Your task to perform on an android device: Open Reddit.com Image 0: 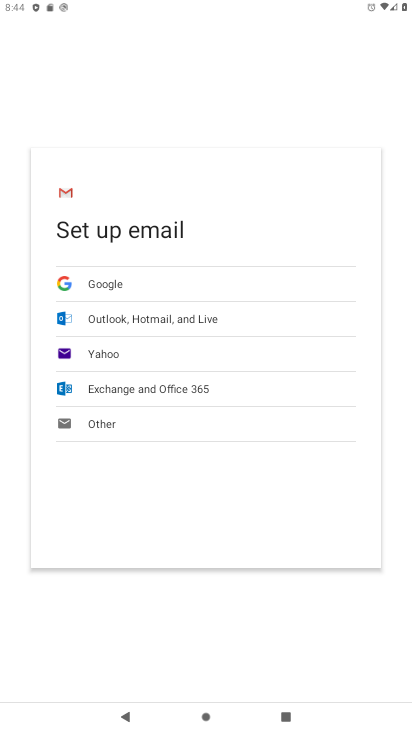
Step 0: press home button
Your task to perform on an android device: Open Reddit.com Image 1: 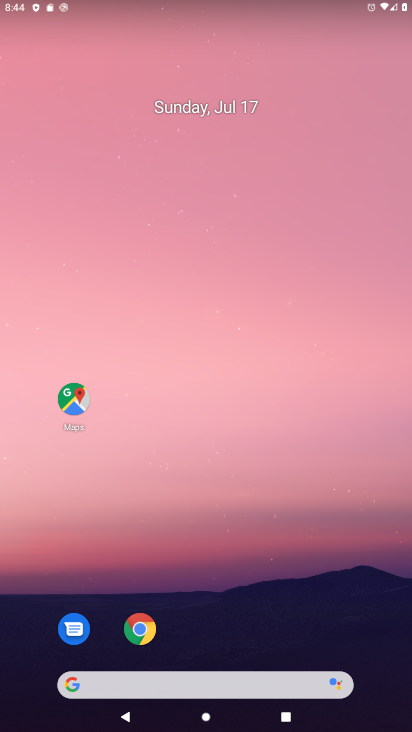
Step 1: click (136, 625)
Your task to perform on an android device: Open Reddit.com Image 2: 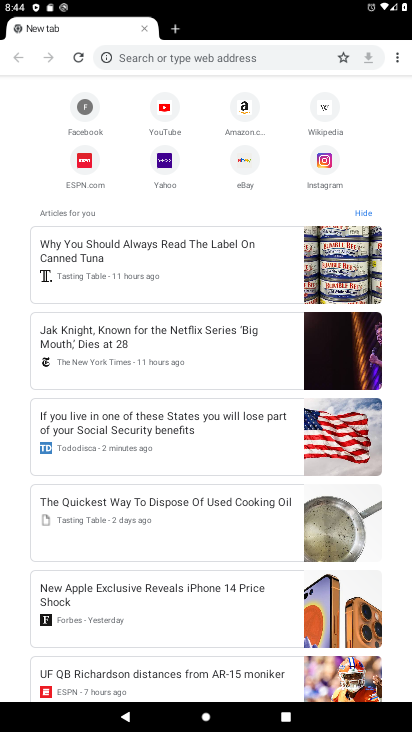
Step 2: click (255, 60)
Your task to perform on an android device: Open Reddit.com Image 3: 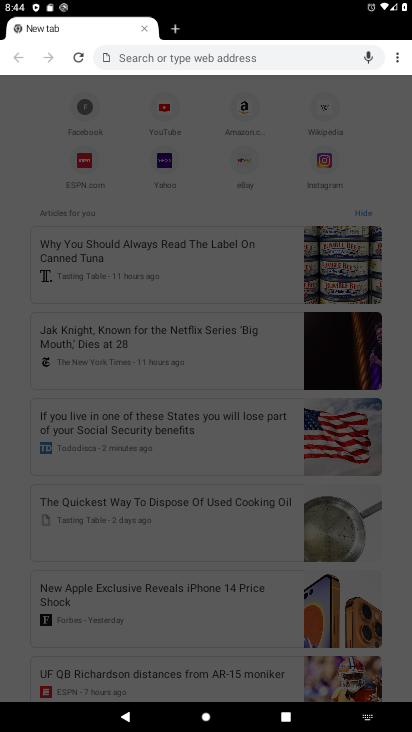
Step 3: type "Reddit.com"
Your task to perform on an android device: Open Reddit.com Image 4: 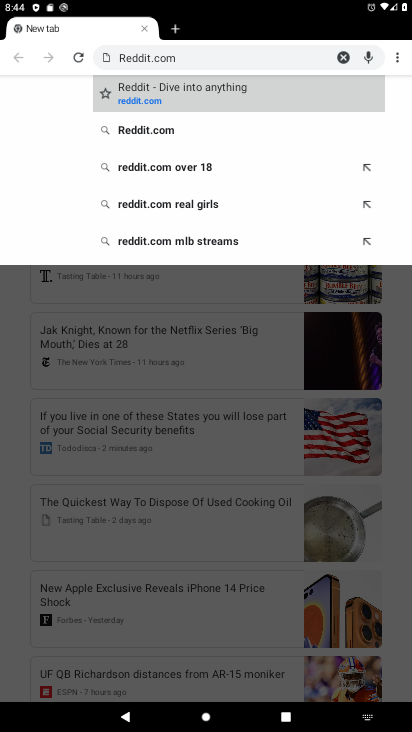
Step 4: click (289, 90)
Your task to perform on an android device: Open Reddit.com Image 5: 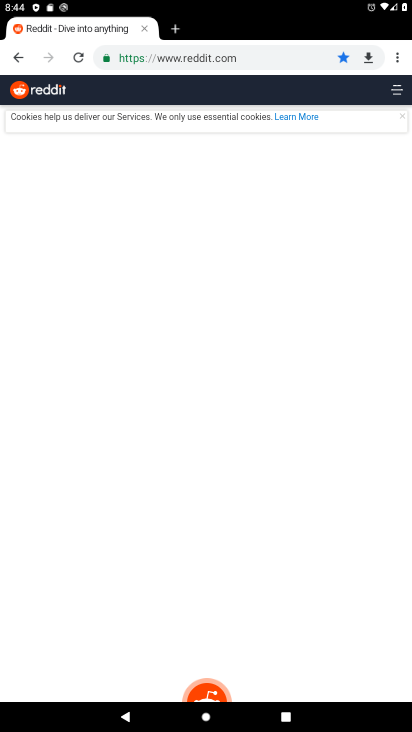
Step 5: task complete